Your task to perform on an android device: Open Google Chrome Image 0: 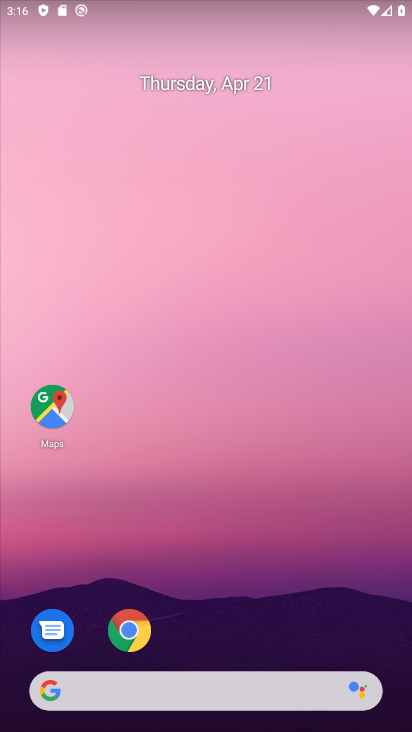
Step 0: click (128, 635)
Your task to perform on an android device: Open Google Chrome Image 1: 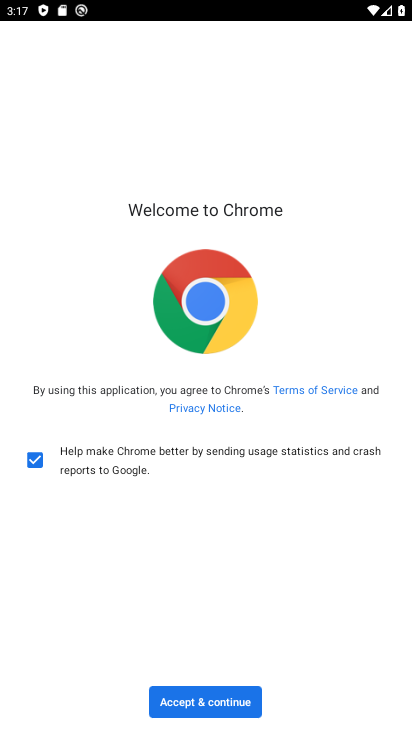
Step 1: click (208, 706)
Your task to perform on an android device: Open Google Chrome Image 2: 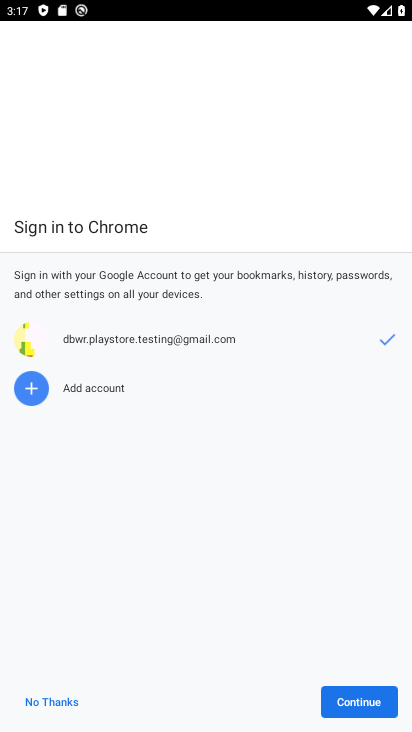
Step 2: click (16, 703)
Your task to perform on an android device: Open Google Chrome Image 3: 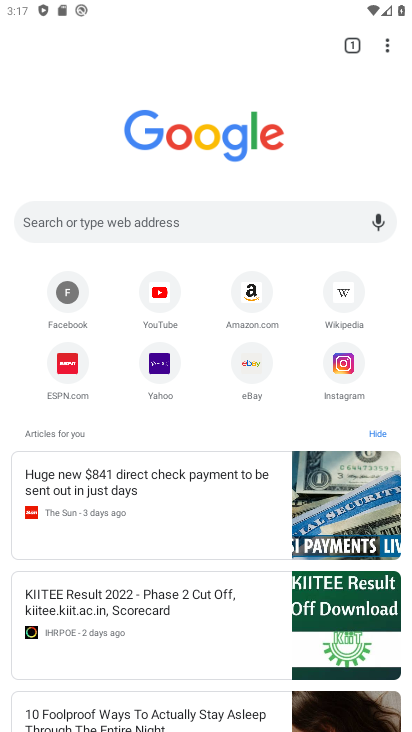
Step 3: task complete